Your task to perform on an android device: Go to eBay Image 0: 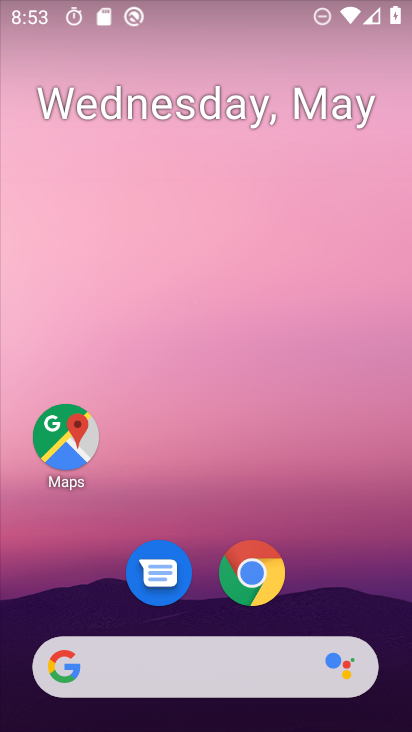
Step 0: click (265, 580)
Your task to perform on an android device: Go to eBay Image 1: 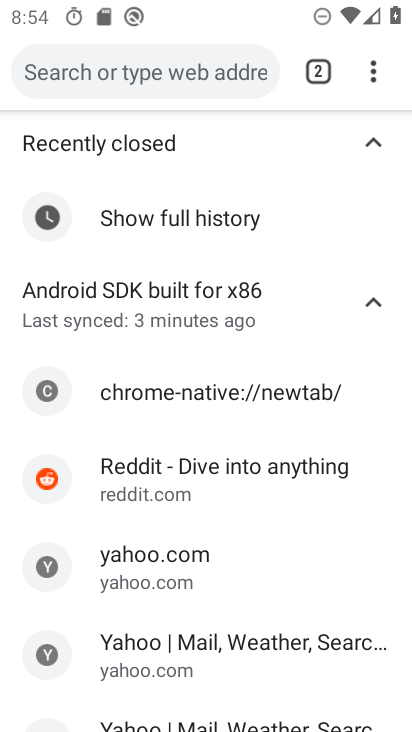
Step 1: click (168, 74)
Your task to perform on an android device: Go to eBay Image 2: 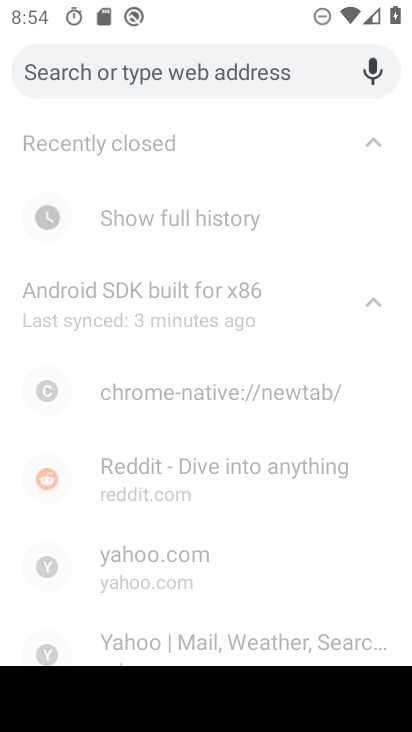
Step 2: type "eBay"
Your task to perform on an android device: Go to eBay Image 3: 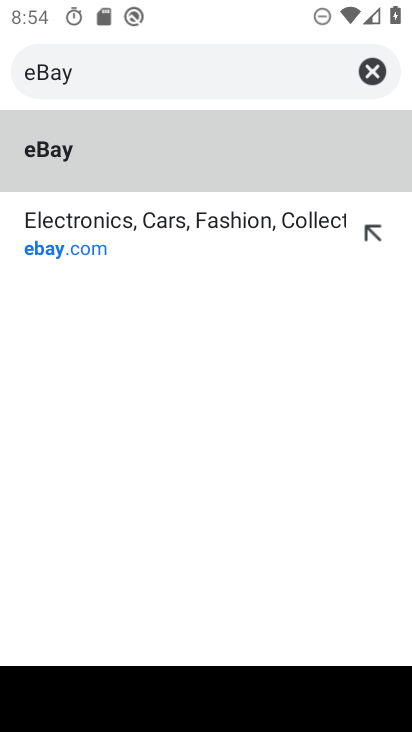
Step 3: click (98, 142)
Your task to perform on an android device: Go to eBay Image 4: 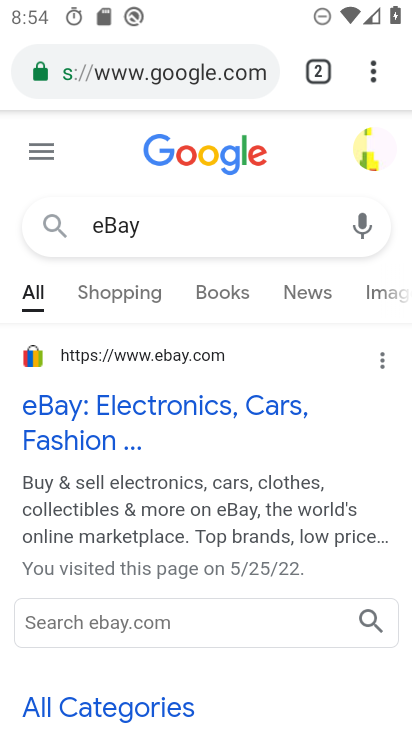
Step 4: task complete